Your task to perform on an android device: turn off location Image 0: 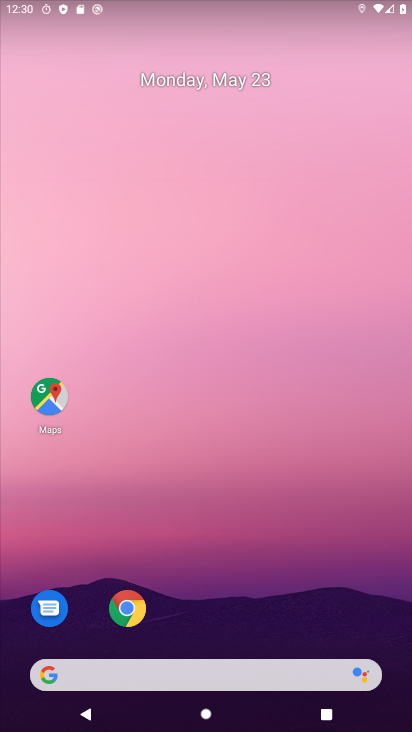
Step 0: drag from (327, 585) to (308, 166)
Your task to perform on an android device: turn off location Image 1: 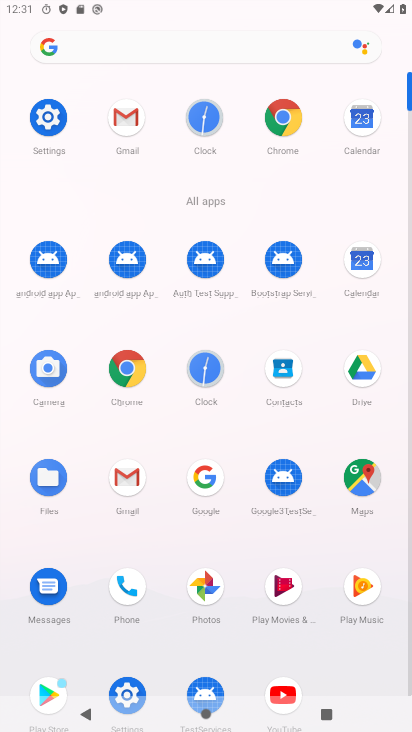
Step 1: click (45, 107)
Your task to perform on an android device: turn off location Image 2: 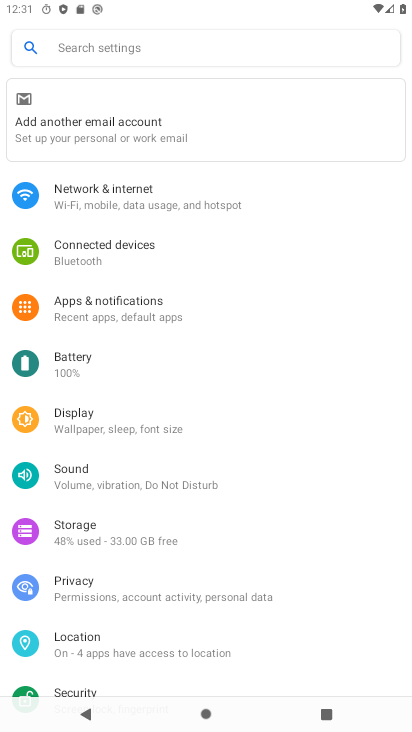
Step 2: click (103, 643)
Your task to perform on an android device: turn off location Image 3: 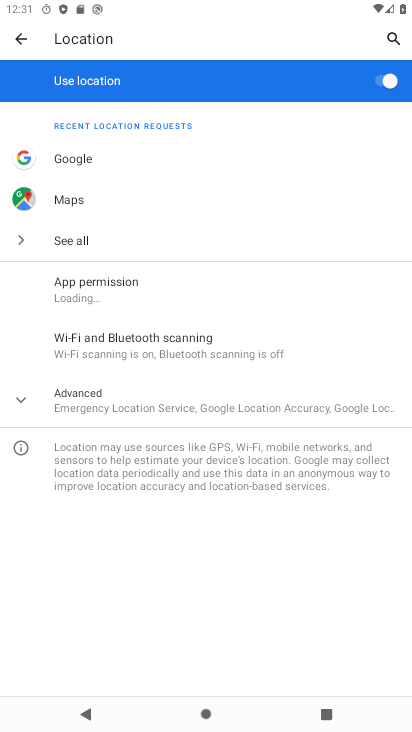
Step 3: click (384, 78)
Your task to perform on an android device: turn off location Image 4: 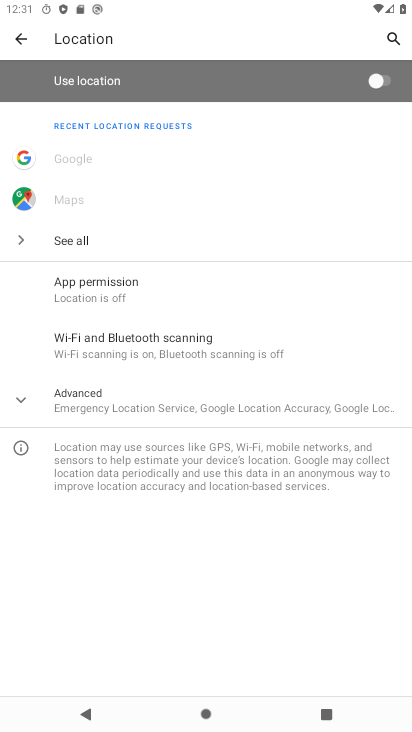
Step 4: task complete